Your task to perform on an android device: Search for sushi restaurants on Maps Image 0: 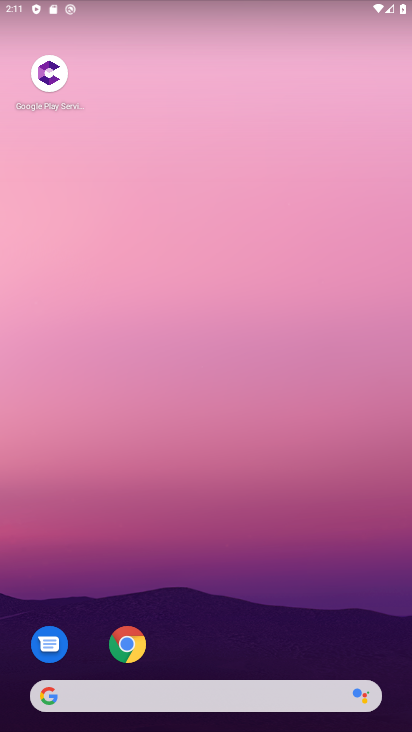
Step 0: drag from (250, 628) to (155, 47)
Your task to perform on an android device: Search for sushi restaurants on Maps Image 1: 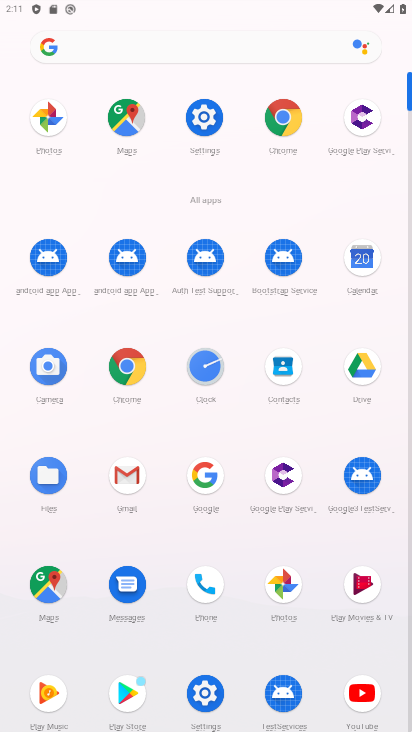
Step 1: click (55, 577)
Your task to perform on an android device: Search for sushi restaurants on Maps Image 2: 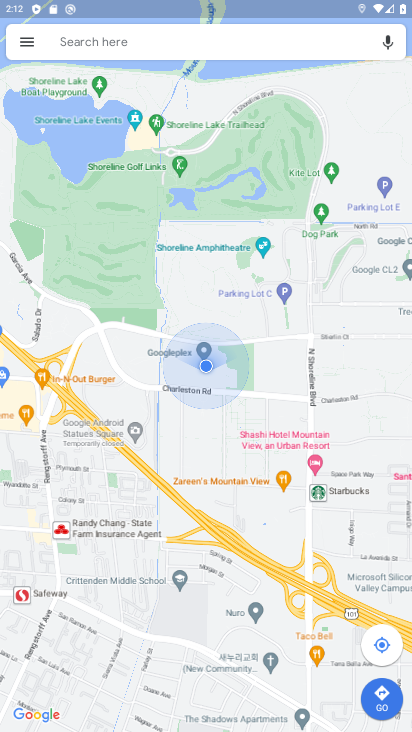
Step 2: click (140, 43)
Your task to perform on an android device: Search for sushi restaurants on Maps Image 3: 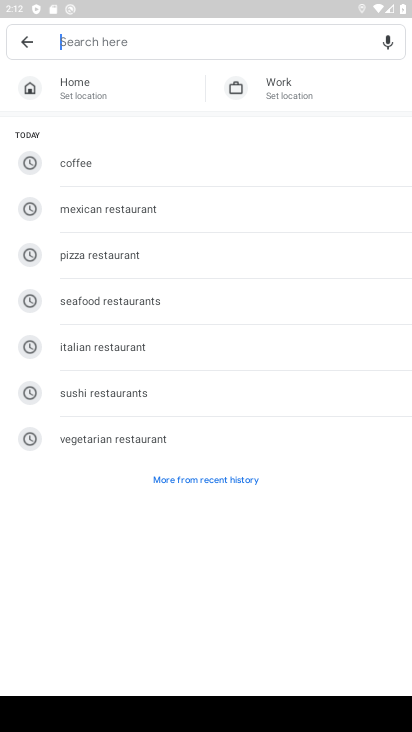
Step 3: click (145, 384)
Your task to perform on an android device: Search for sushi restaurants on Maps Image 4: 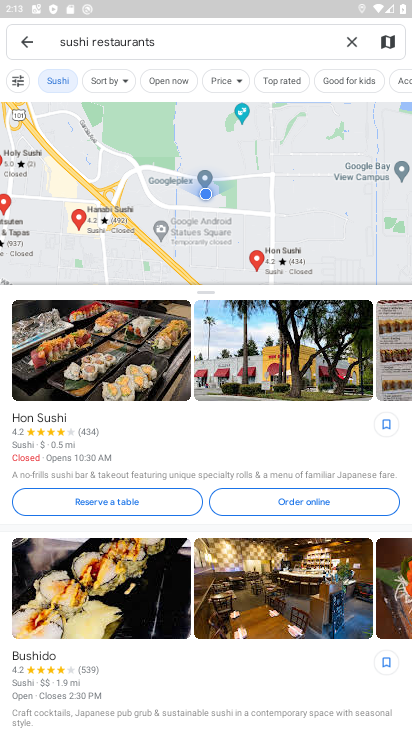
Step 4: task complete